Your task to perform on an android device: Empty the shopping cart on ebay.com. Search for "duracell triple a" on ebay.com, select the first entry, and add it to the cart. Image 0: 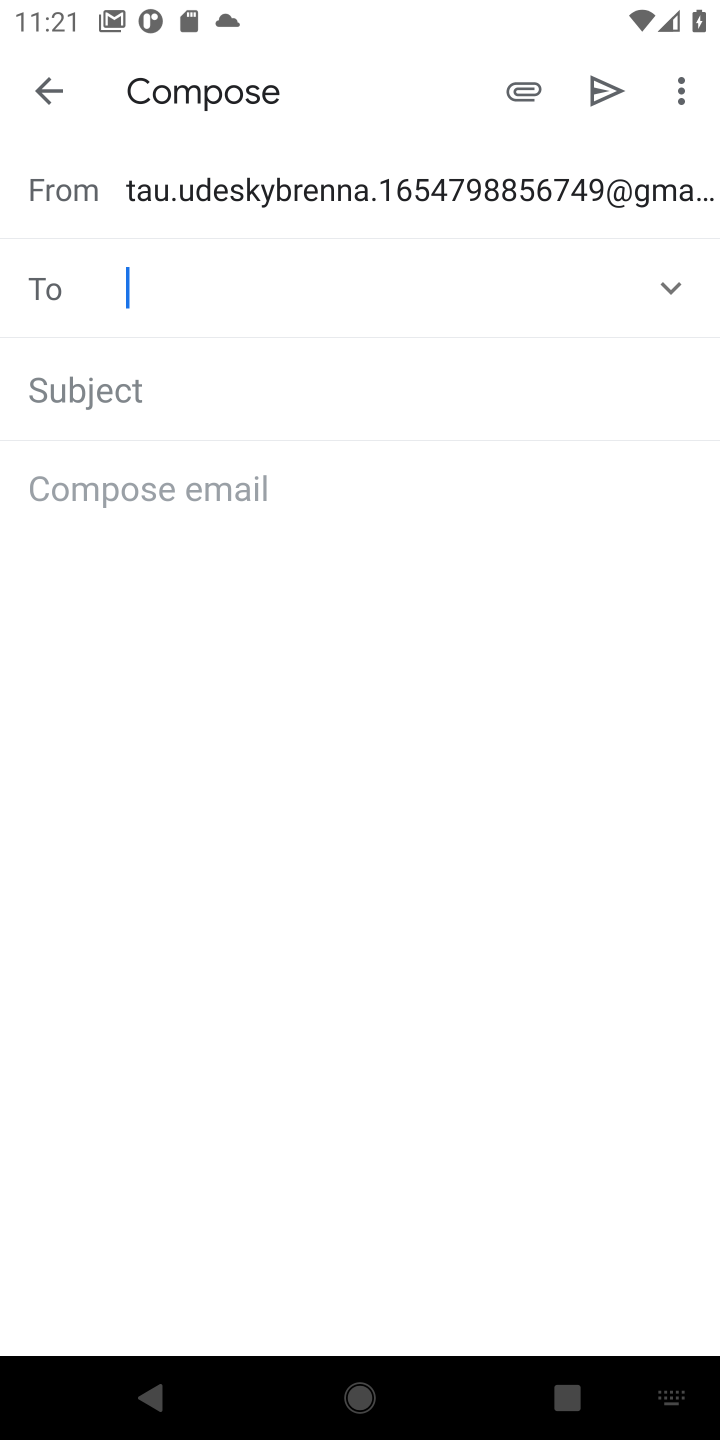
Step 0: press home button
Your task to perform on an android device: Empty the shopping cart on ebay.com. Search for "duracell triple a" on ebay.com, select the first entry, and add it to the cart. Image 1: 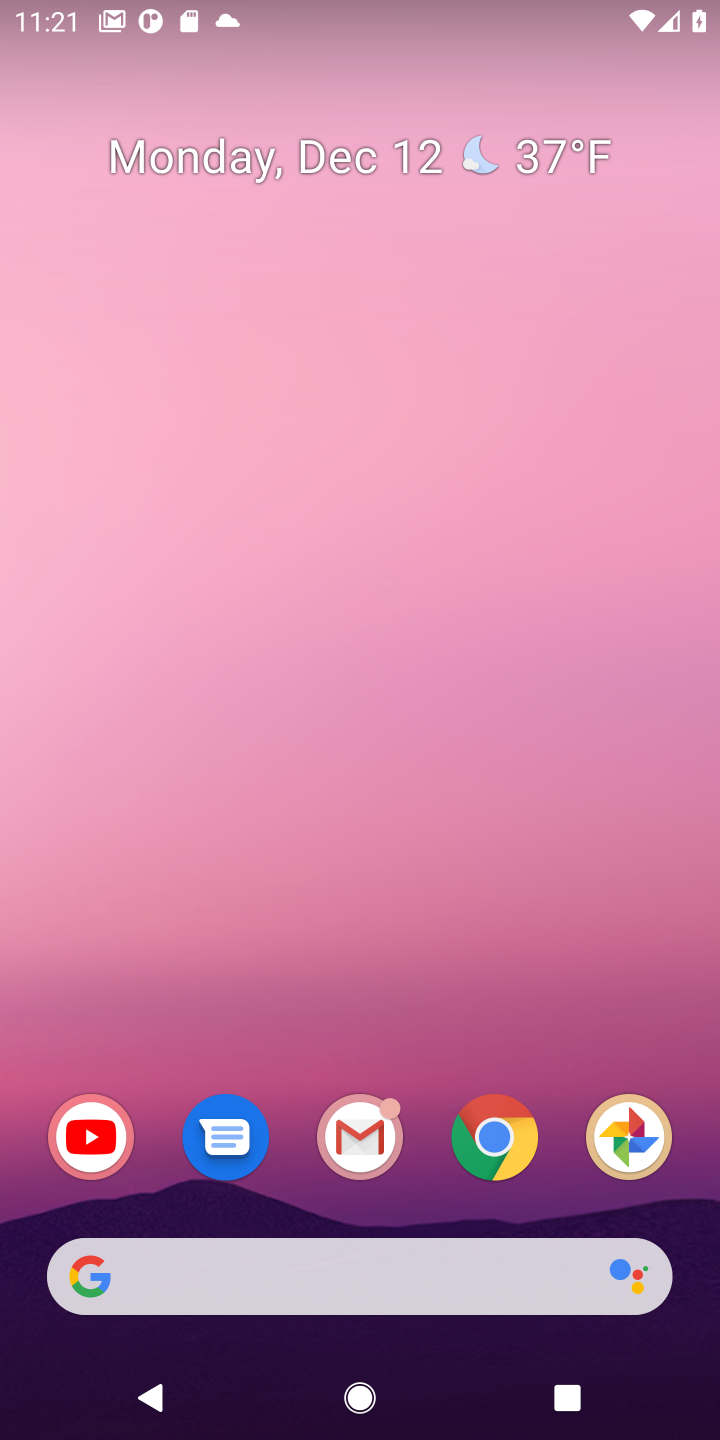
Step 1: click (495, 1153)
Your task to perform on an android device: Empty the shopping cart on ebay.com. Search for "duracell triple a" on ebay.com, select the first entry, and add it to the cart. Image 2: 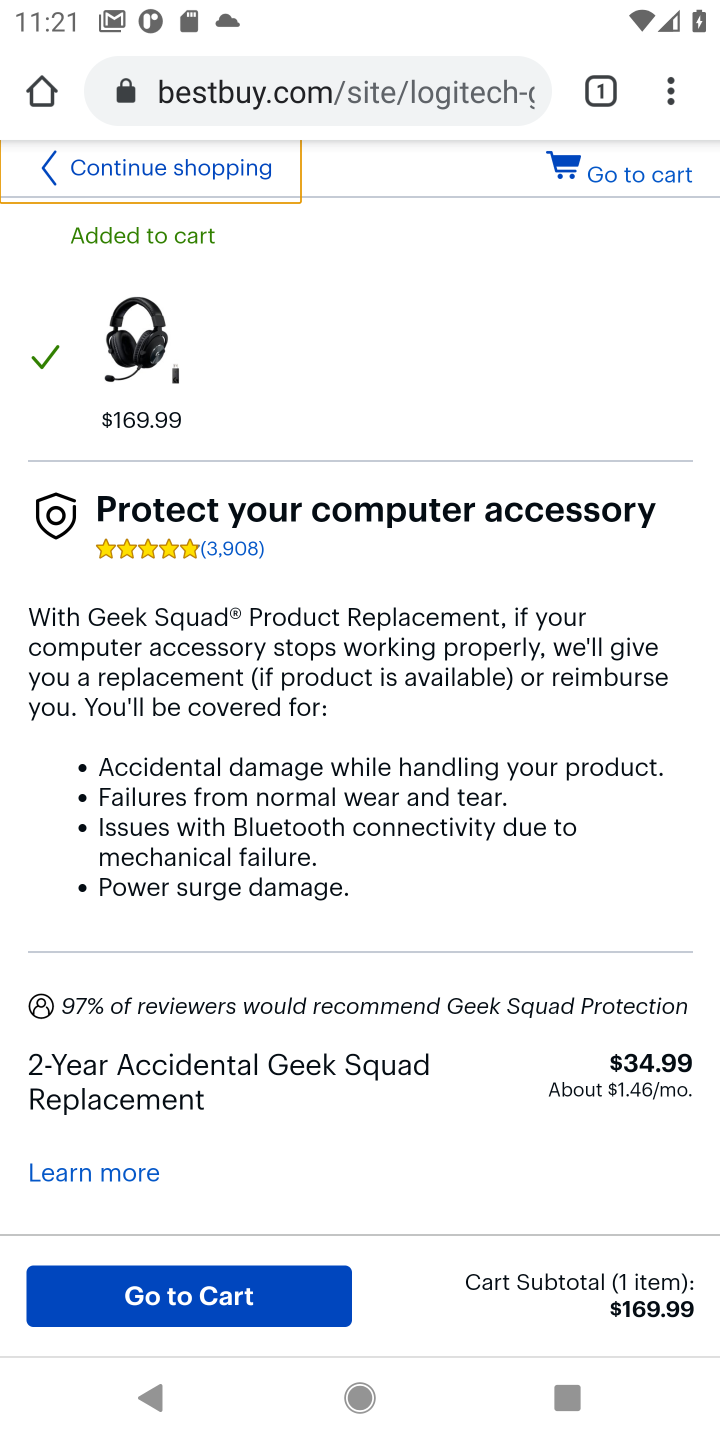
Step 2: task complete